Your task to perform on an android device: turn off airplane mode Image 0: 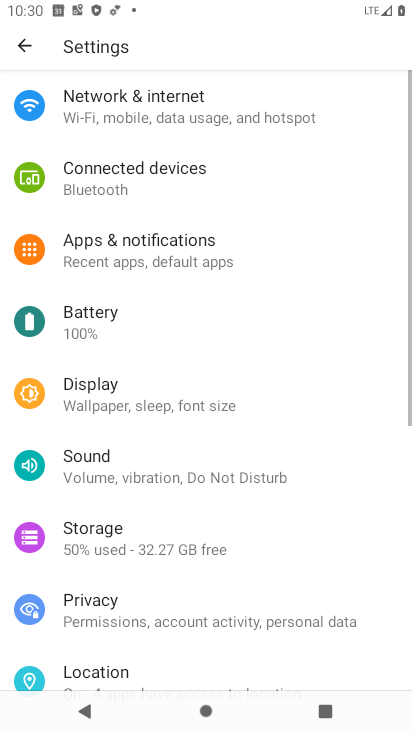
Step 0: press home button
Your task to perform on an android device: turn off airplane mode Image 1: 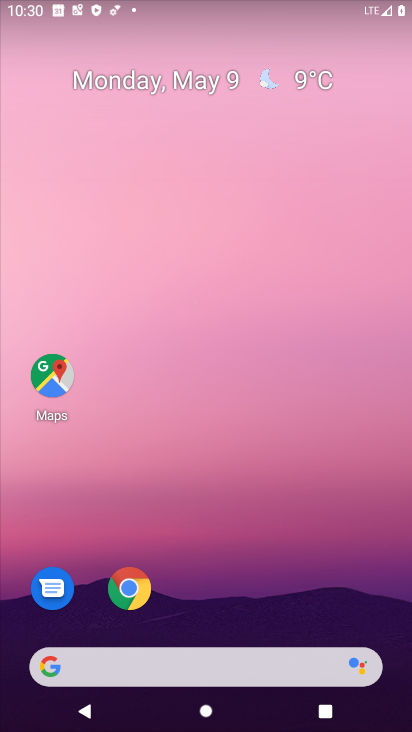
Step 1: drag from (204, 670) to (335, 83)
Your task to perform on an android device: turn off airplane mode Image 2: 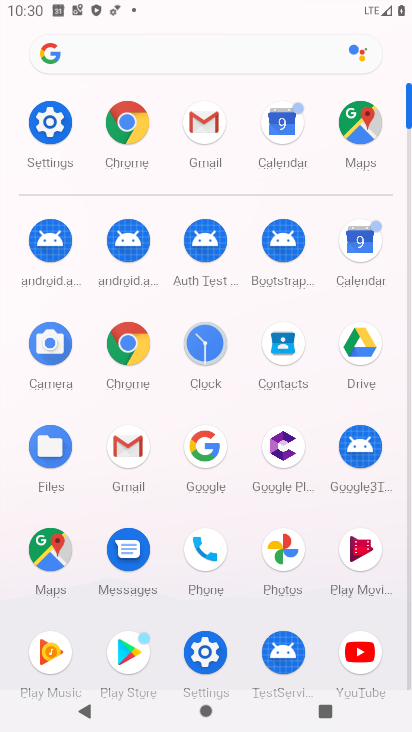
Step 2: click (53, 121)
Your task to perform on an android device: turn off airplane mode Image 3: 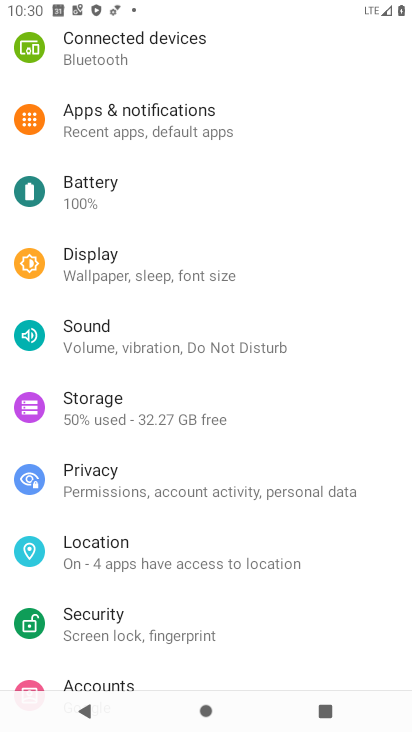
Step 3: drag from (294, 87) to (184, 526)
Your task to perform on an android device: turn off airplane mode Image 4: 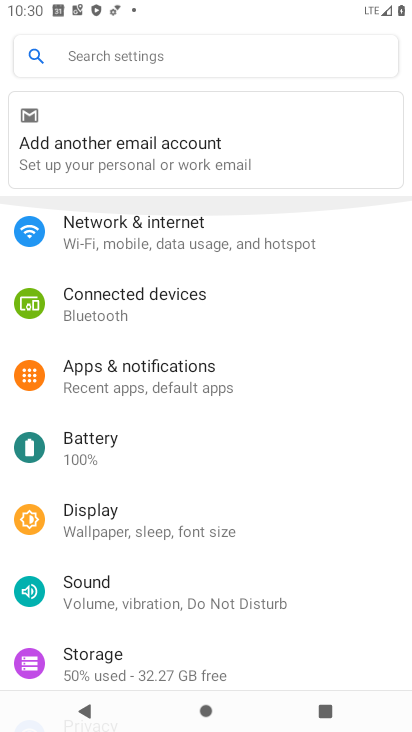
Step 4: click (210, 241)
Your task to perform on an android device: turn off airplane mode Image 5: 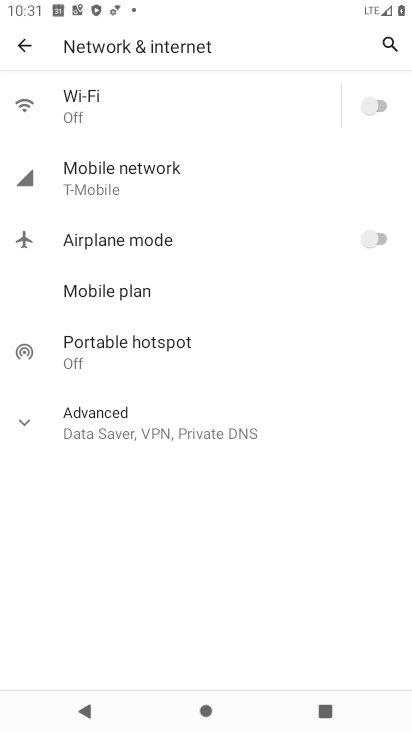
Step 5: task complete